Your task to perform on an android device: delete location history Image 0: 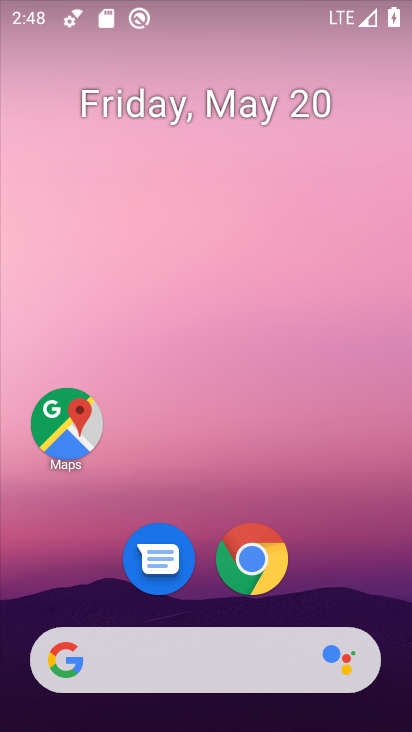
Step 0: click (64, 435)
Your task to perform on an android device: delete location history Image 1: 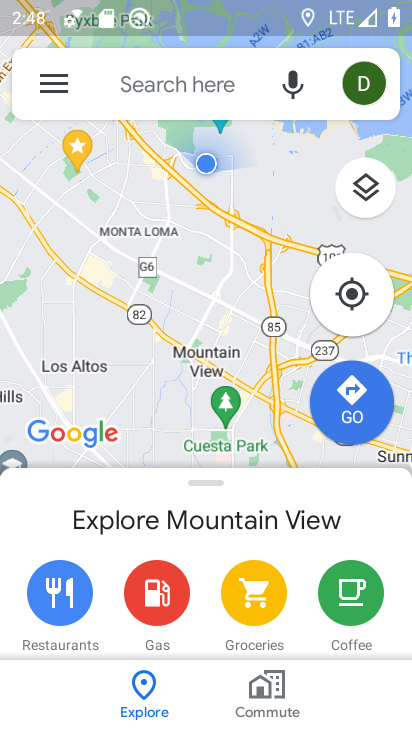
Step 1: click (53, 82)
Your task to perform on an android device: delete location history Image 2: 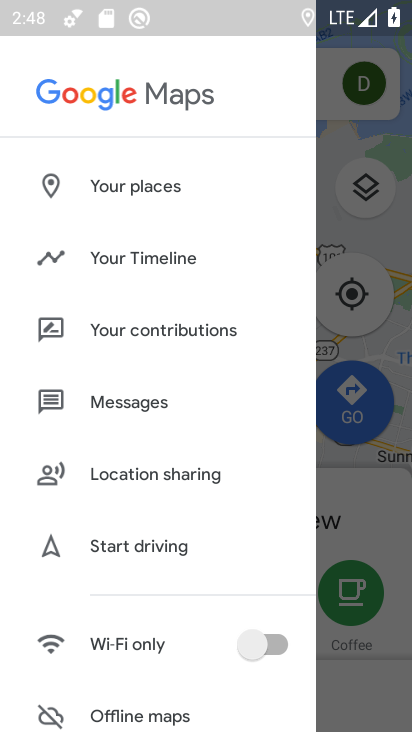
Step 2: click (146, 249)
Your task to perform on an android device: delete location history Image 3: 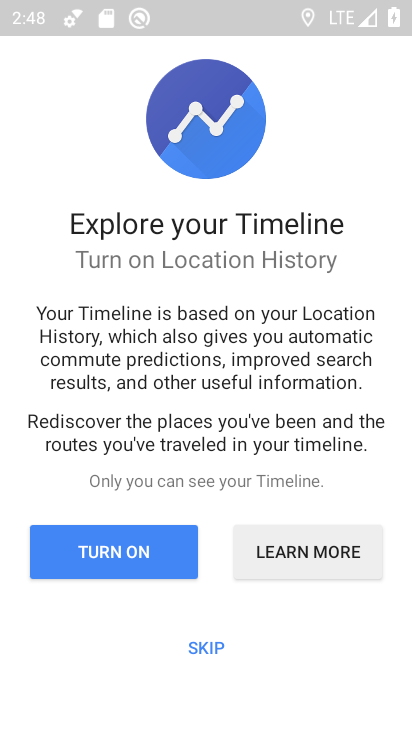
Step 3: click (205, 636)
Your task to perform on an android device: delete location history Image 4: 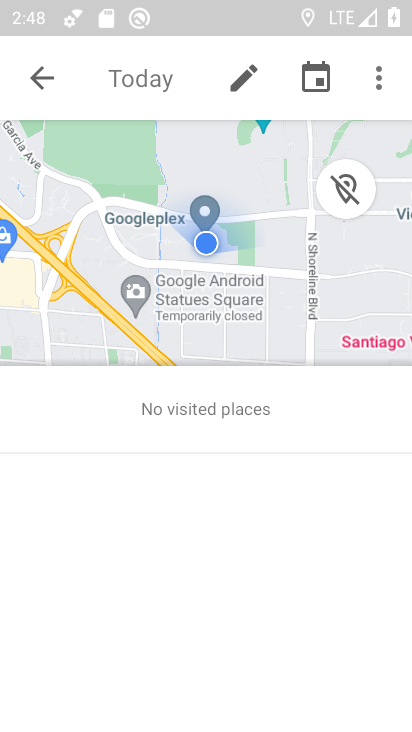
Step 4: click (373, 87)
Your task to perform on an android device: delete location history Image 5: 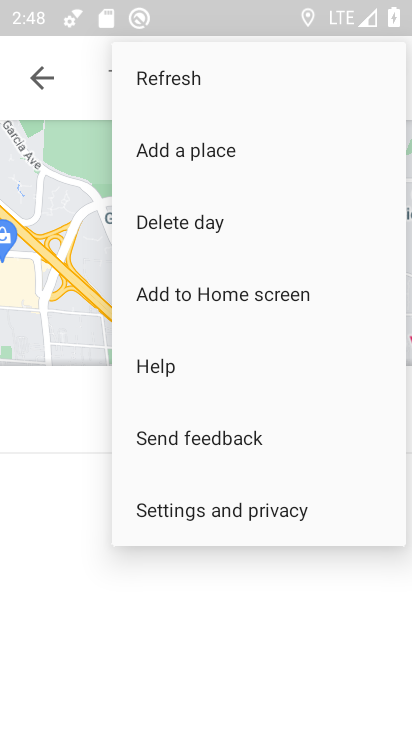
Step 5: click (234, 513)
Your task to perform on an android device: delete location history Image 6: 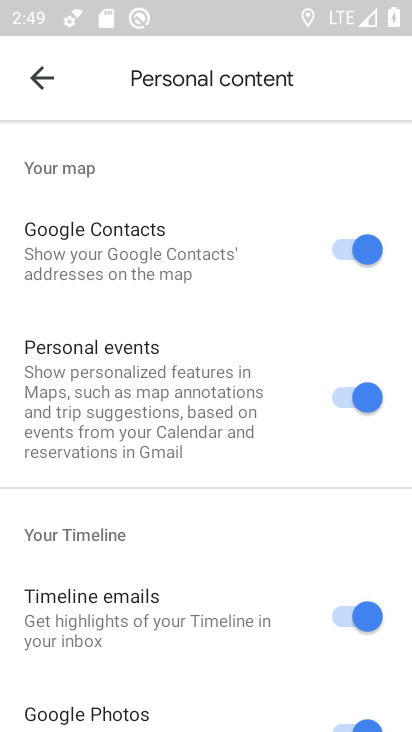
Step 6: drag from (208, 584) to (233, 180)
Your task to perform on an android device: delete location history Image 7: 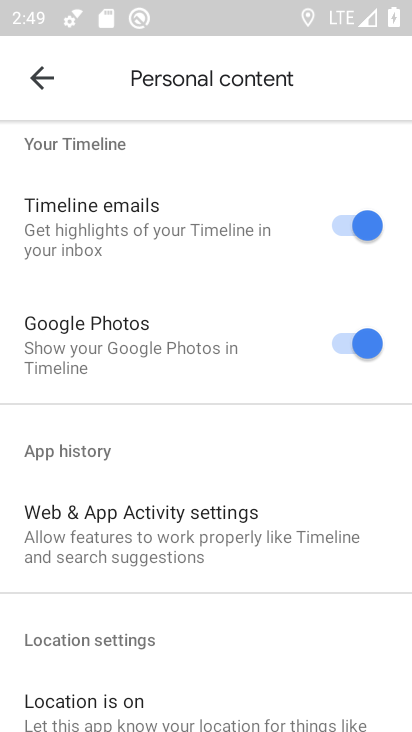
Step 7: drag from (194, 602) to (236, 176)
Your task to perform on an android device: delete location history Image 8: 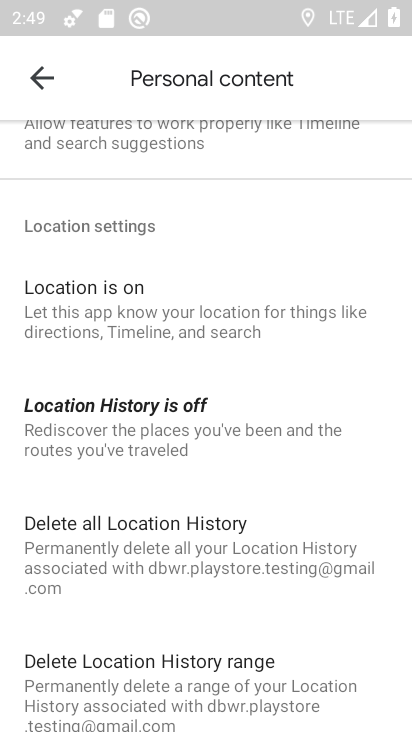
Step 8: click (174, 549)
Your task to perform on an android device: delete location history Image 9: 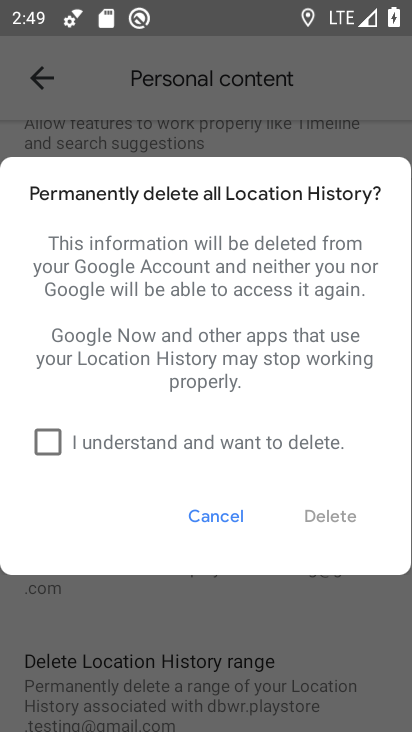
Step 9: click (40, 441)
Your task to perform on an android device: delete location history Image 10: 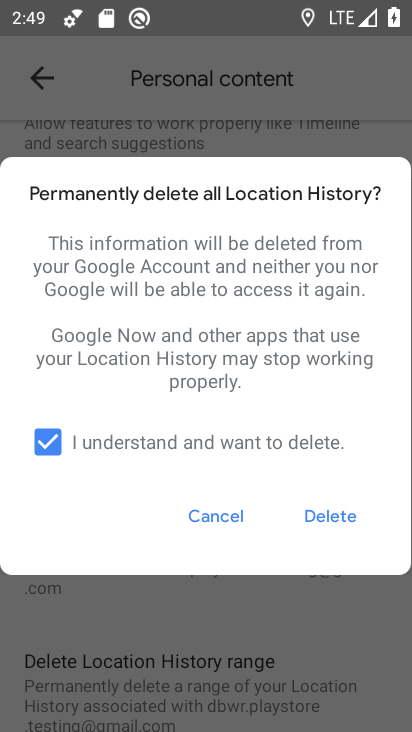
Step 10: click (323, 519)
Your task to perform on an android device: delete location history Image 11: 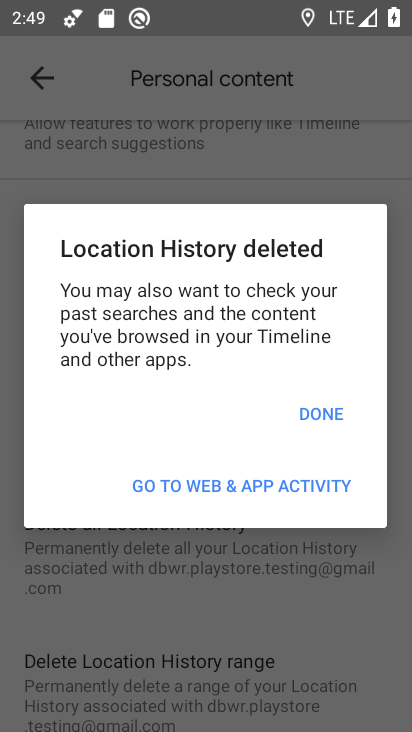
Step 11: click (325, 411)
Your task to perform on an android device: delete location history Image 12: 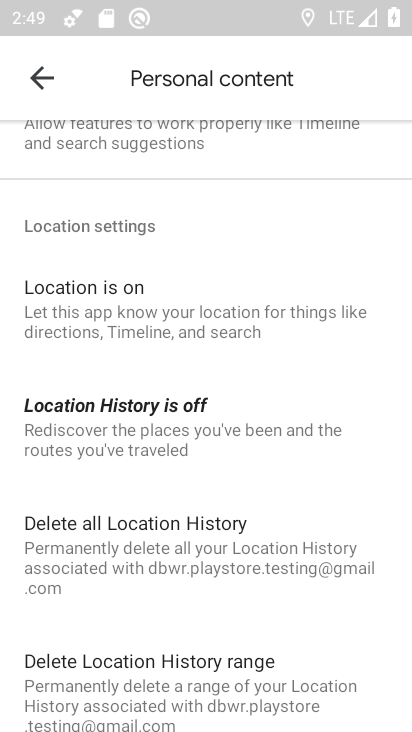
Step 12: task complete